Your task to perform on an android device: open chrome privacy settings Image 0: 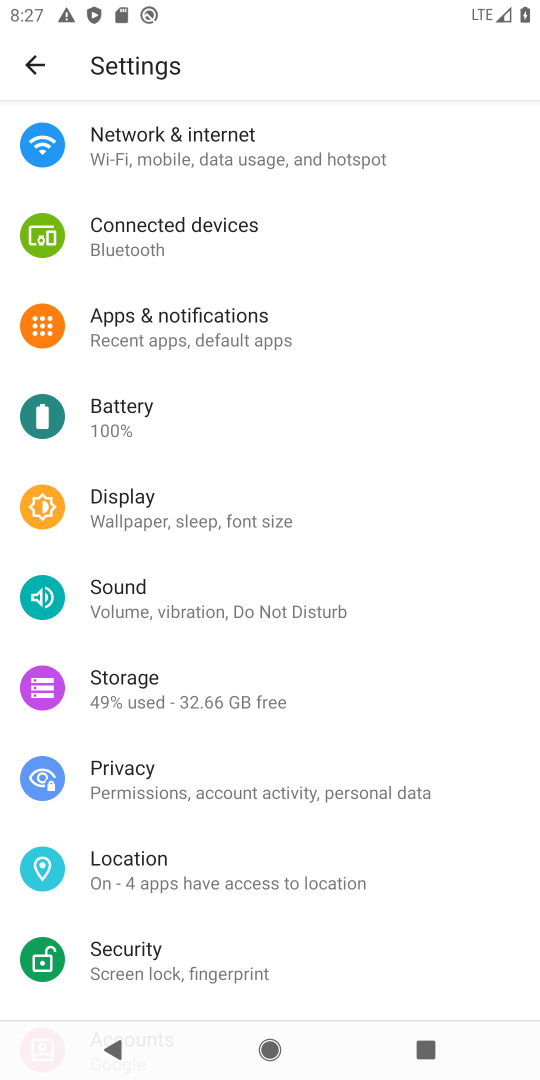
Step 0: press home button
Your task to perform on an android device: open chrome privacy settings Image 1: 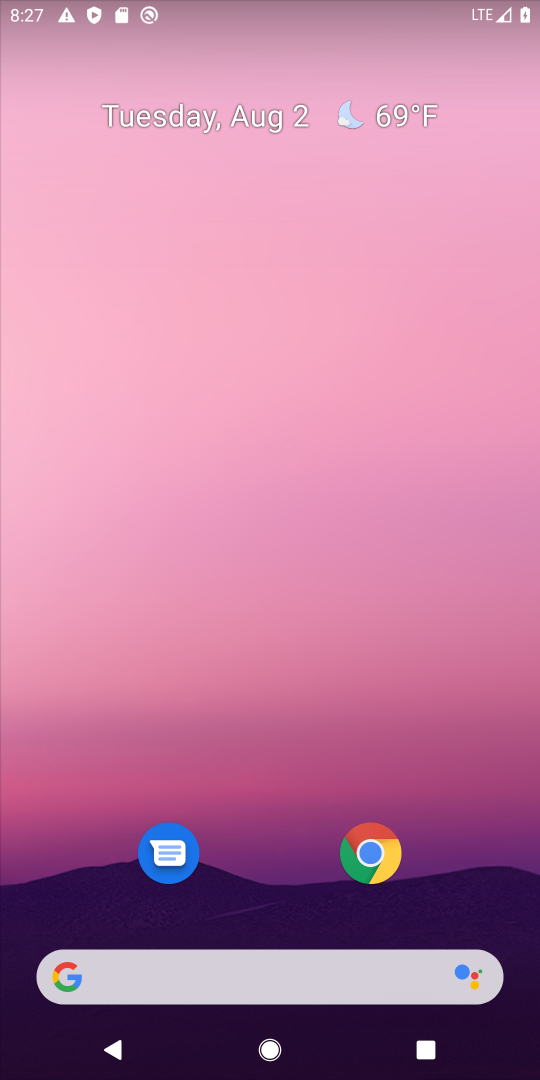
Step 1: drag from (217, 854) to (200, 290)
Your task to perform on an android device: open chrome privacy settings Image 2: 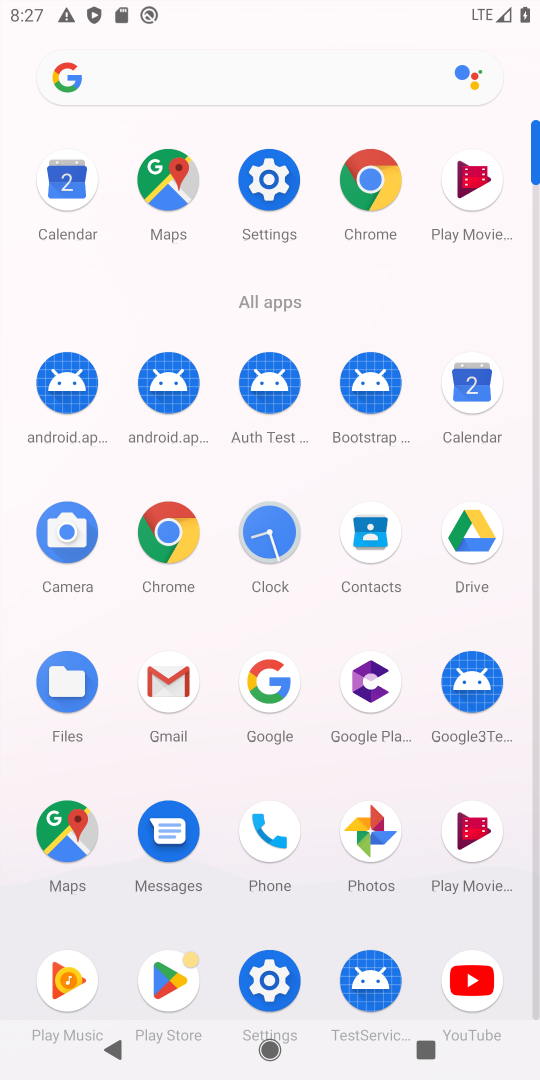
Step 2: click (364, 223)
Your task to perform on an android device: open chrome privacy settings Image 3: 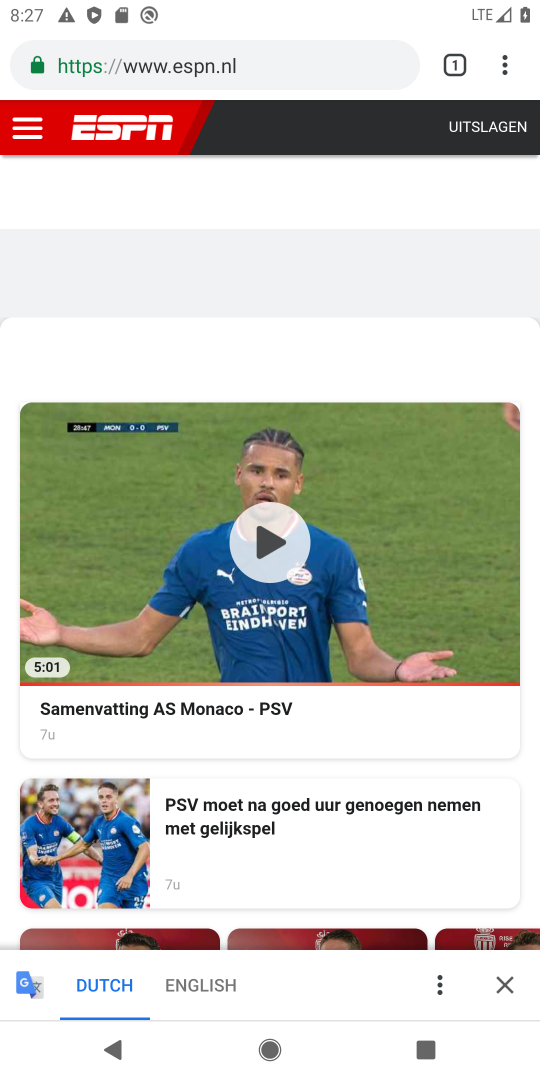
Step 3: click (508, 57)
Your task to perform on an android device: open chrome privacy settings Image 4: 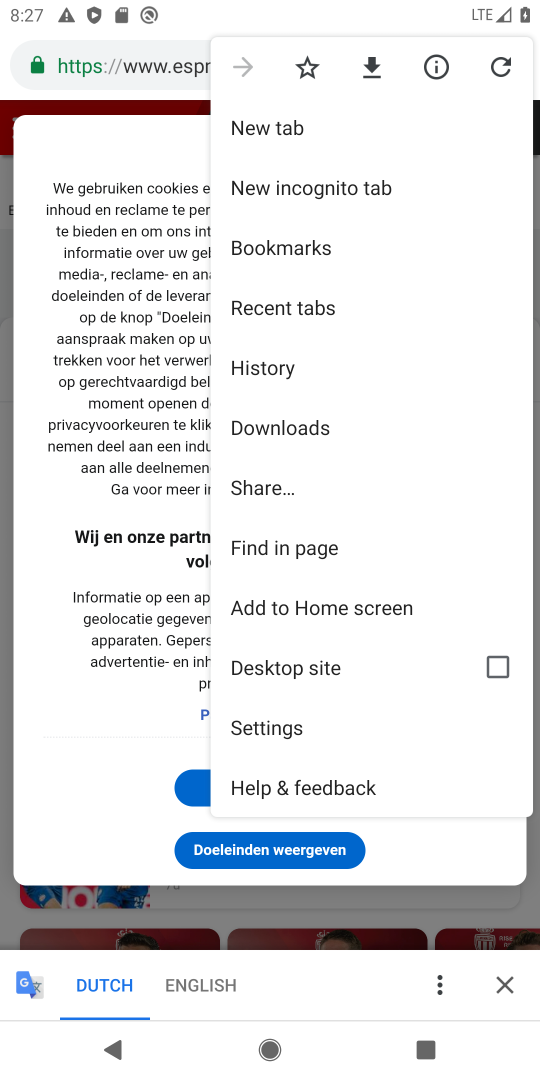
Step 4: click (274, 723)
Your task to perform on an android device: open chrome privacy settings Image 5: 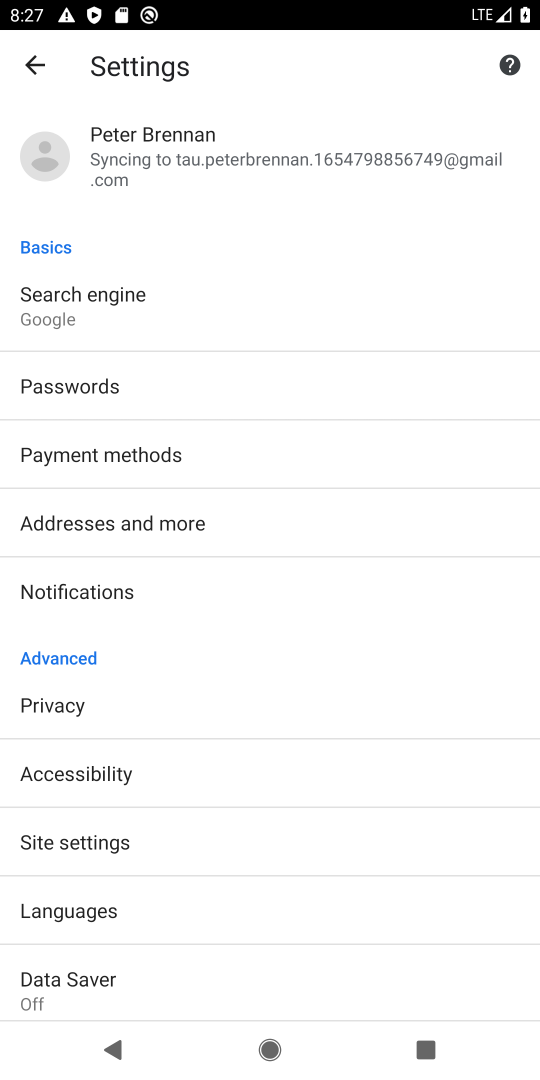
Step 5: click (35, 703)
Your task to perform on an android device: open chrome privacy settings Image 6: 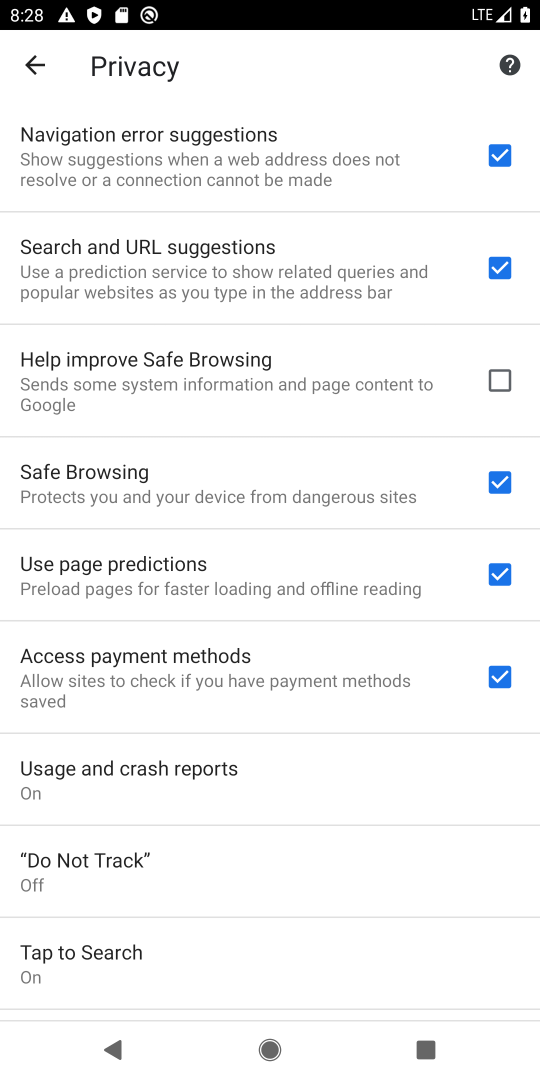
Step 6: task complete